Your task to perform on an android device: What's the weather? Image 0: 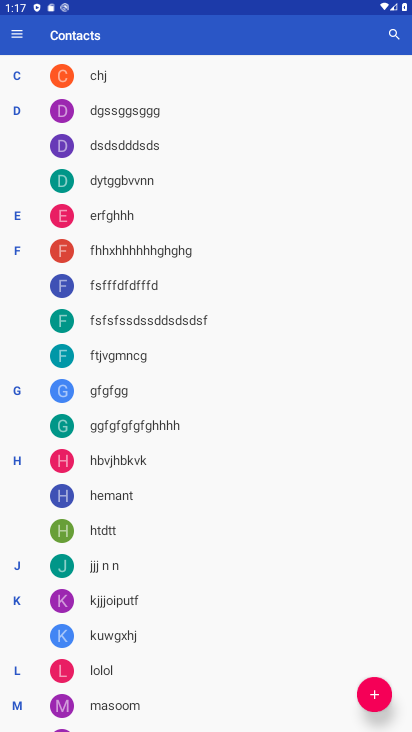
Step 0: press home button
Your task to perform on an android device: What's the weather? Image 1: 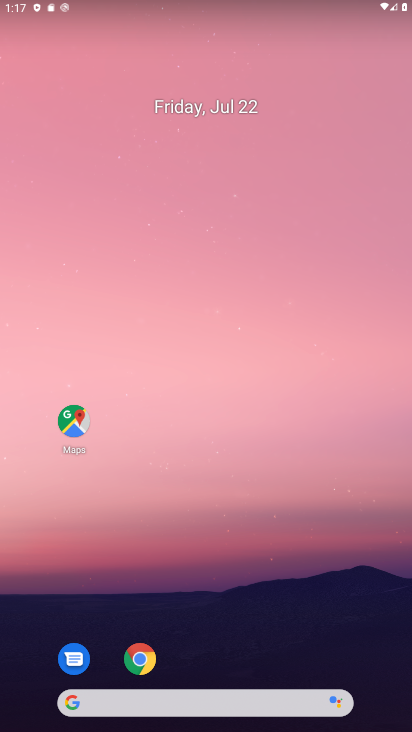
Step 1: click (268, 711)
Your task to perform on an android device: What's the weather? Image 2: 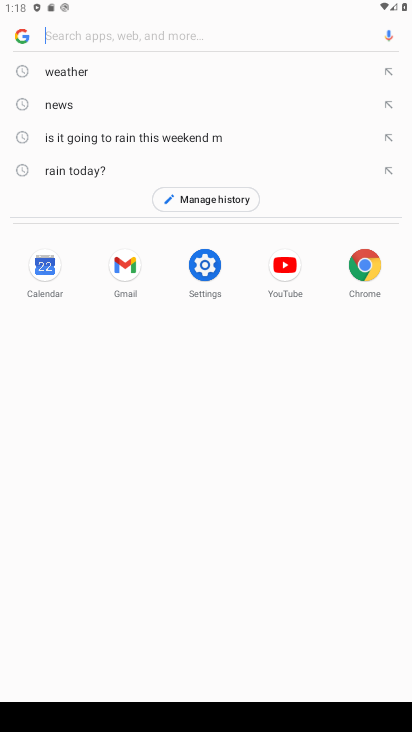
Step 2: type "weather"
Your task to perform on an android device: What's the weather? Image 3: 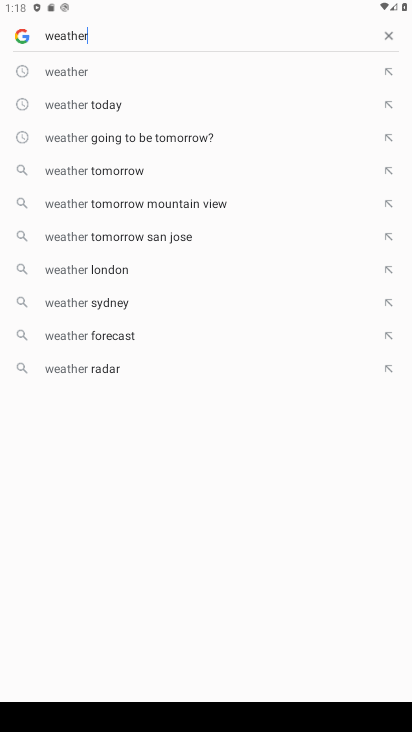
Step 3: click (191, 80)
Your task to perform on an android device: What's the weather? Image 4: 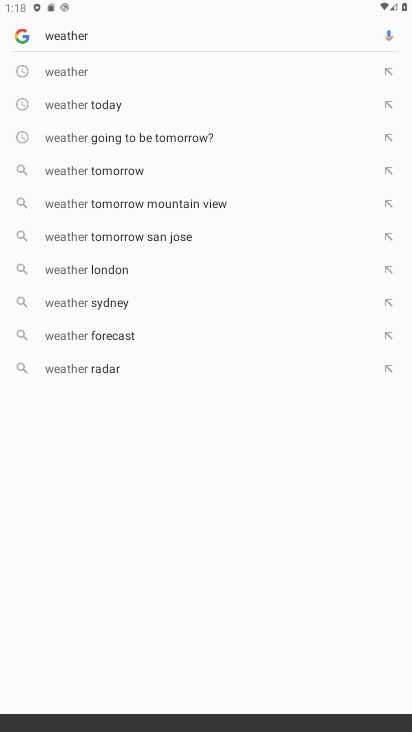
Step 4: task complete